Your task to perform on an android device: Open Google Chrome and open the bookmarks view Image 0: 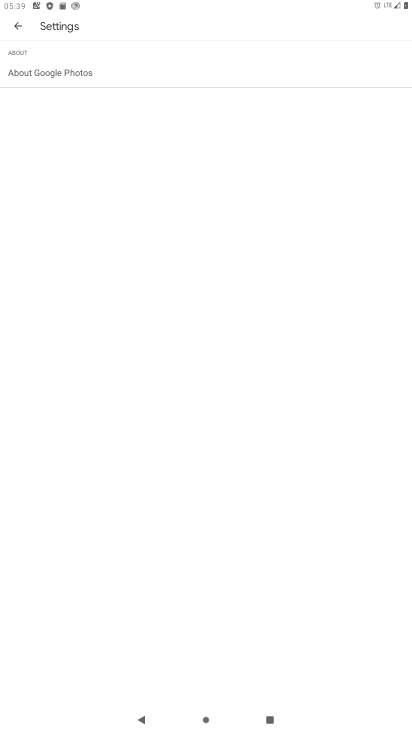
Step 0: press home button
Your task to perform on an android device: Open Google Chrome and open the bookmarks view Image 1: 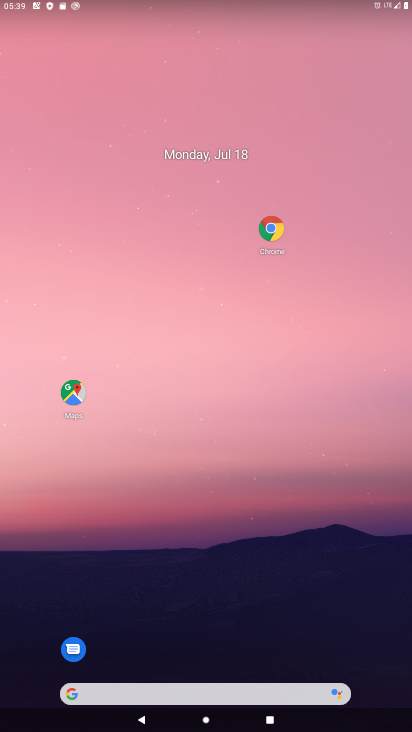
Step 1: click (268, 230)
Your task to perform on an android device: Open Google Chrome and open the bookmarks view Image 2: 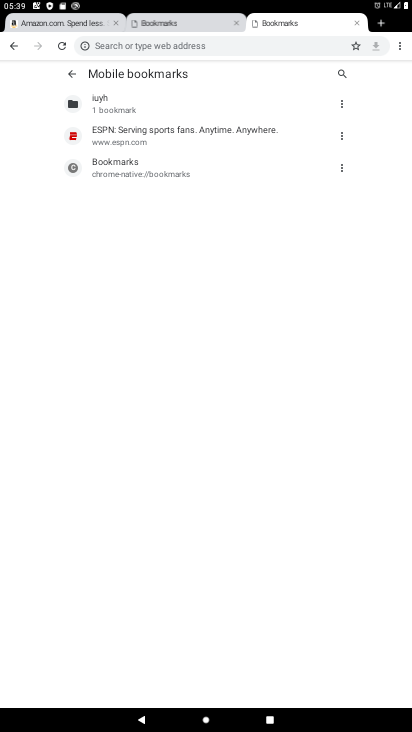
Step 2: task complete